Your task to perform on an android device: turn off sleep mode Image 0: 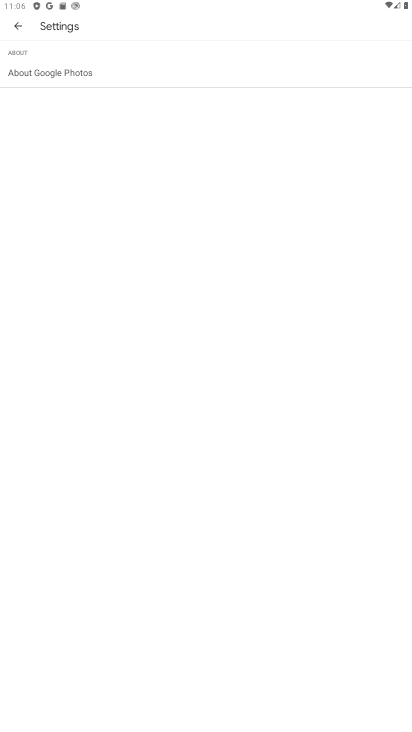
Step 0: press home button
Your task to perform on an android device: turn off sleep mode Image 1: 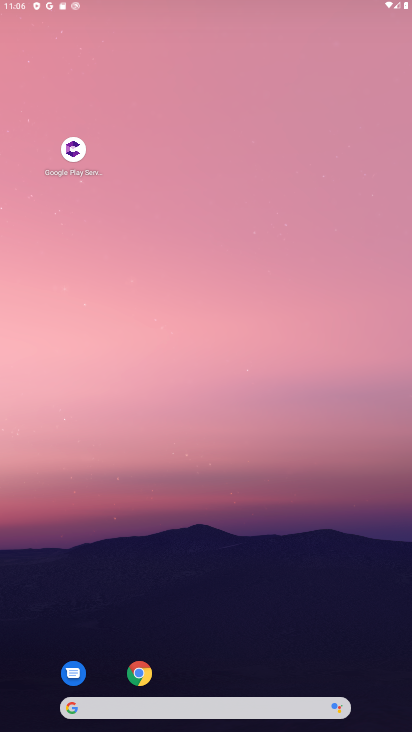
Step 1: drag from (291, 635) to (283, 265)
Your task to perform on an android device: turn off sleep mode Image 2: 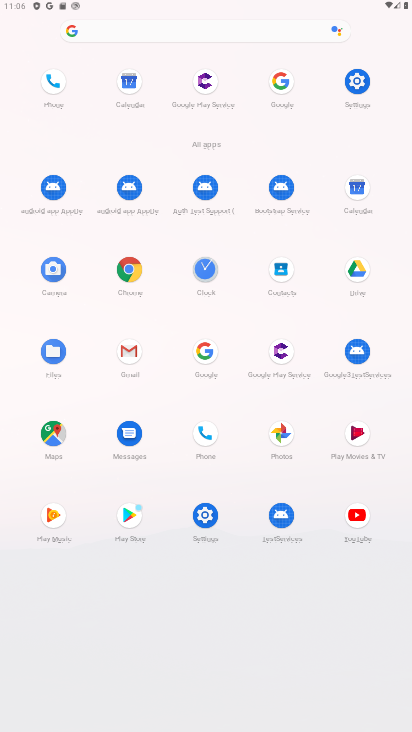
Step 2: click (201, 514)
Your task to perform on an android device: turn off sleep mode Image 3: 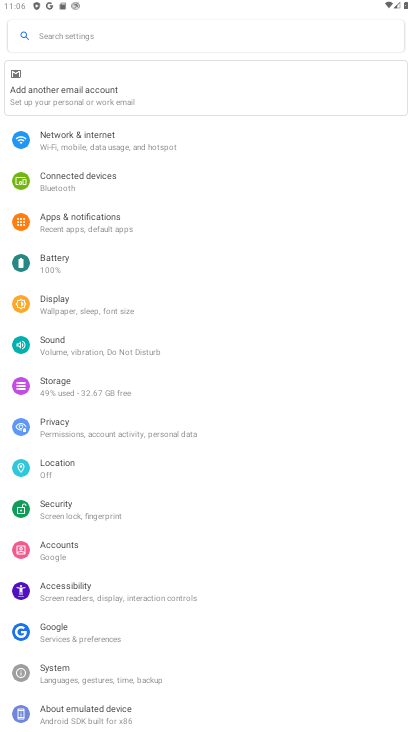
Step 3: click (94, 307)
Your task to perform on an android device: turn off sleep mode Image 4: 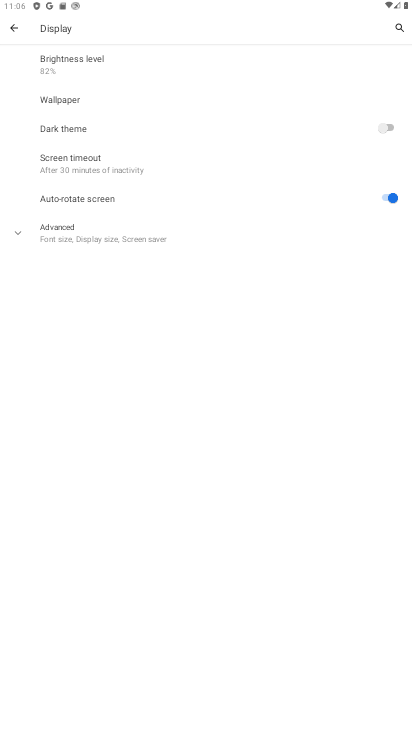
Step 4: click (81, 163)
Your task to perform on an android device: turn off sleep mode Image 5: 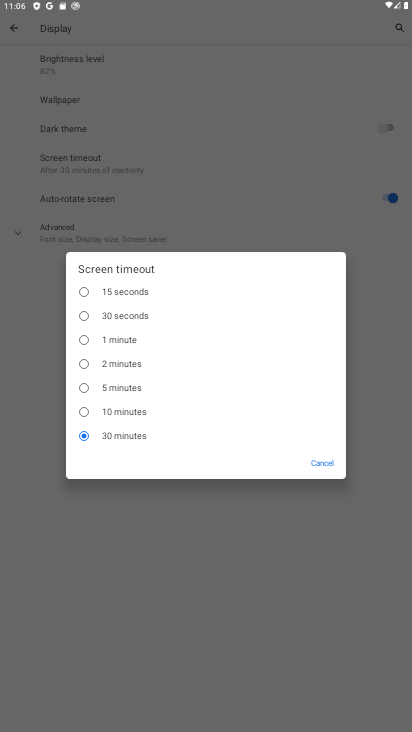
Step 5: task complete